Your task to perform on an android device: Show me popular games on the Play Store Image 0: 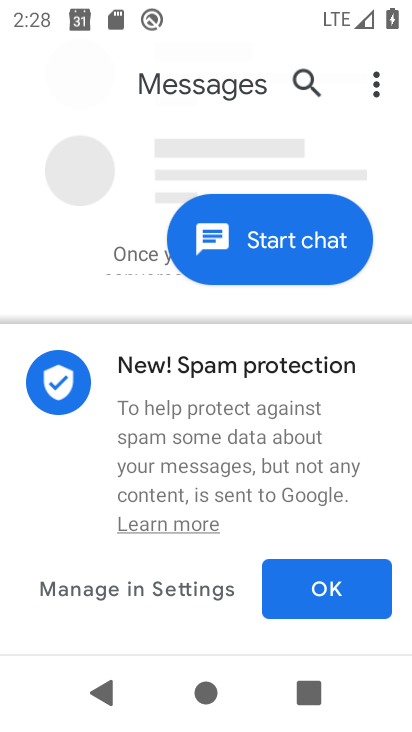
Step 0: press back button
Your task to perform on an android device: Show me popular games on the Play Store Image 1: 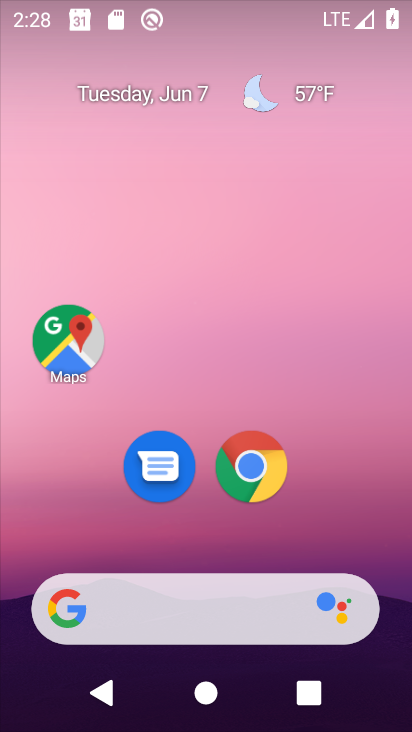
Step 1: drag from (171, 567) to (273, 0)
Your task to perform on an android device: Show me popular games on the Play Store Image 2: 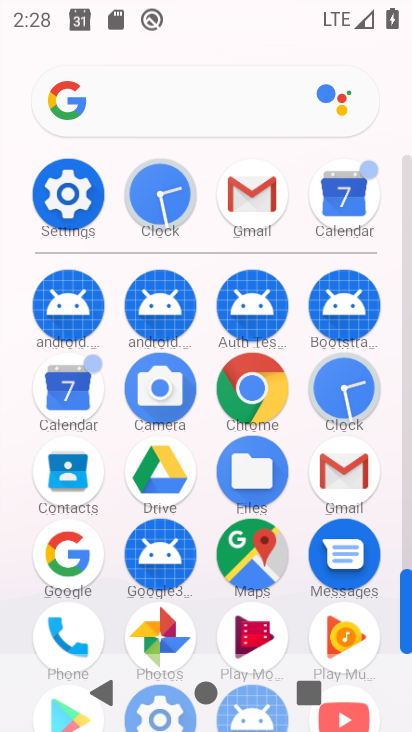
Step 2: drag from (133, 599) to (295, 61)
Your task to perform on an android device: Show me popular games on the Play Store Image 3: 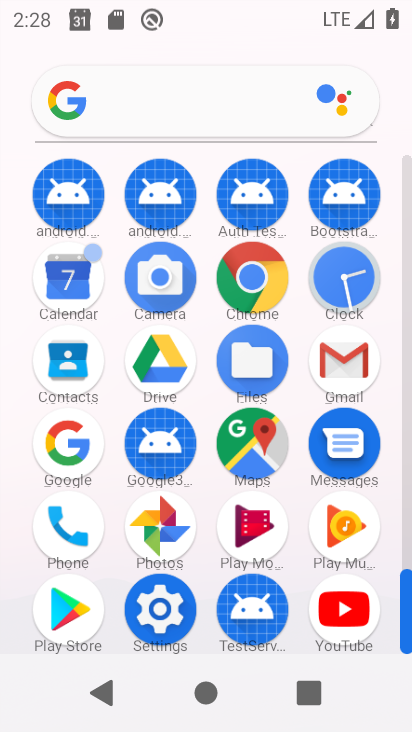
Step 3: click (62, 603)
Your task to perform on an android device: Show me popular games on the Play Store Image 4: 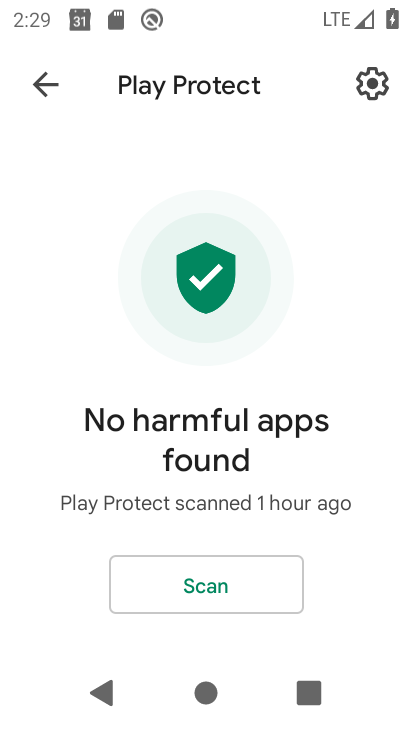
Step 4: click (52, 89)
Your task to perform on an android device: Show me popular games on the Play Store Image 5: 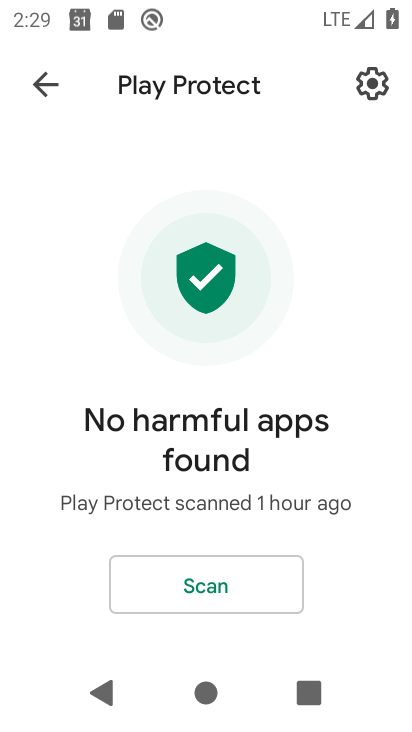
Step 5: click (34, 82)
Your task to perform on an android device: Show me popular games on the Play Store Image 6: 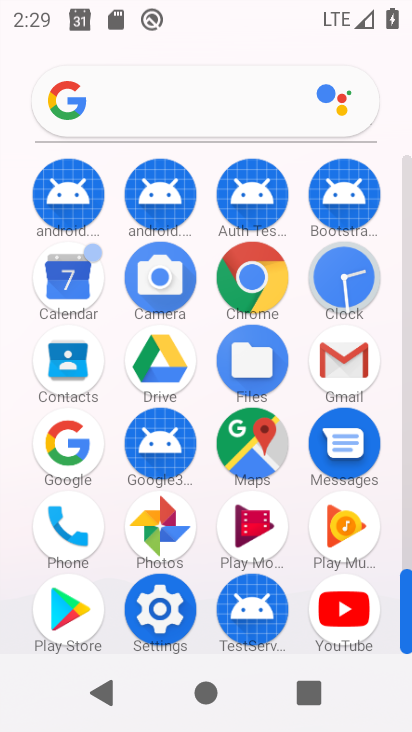
Step 6: click (63, 630)
Your task to perform on an android device: Show me popular games on the Play Store Image 7: 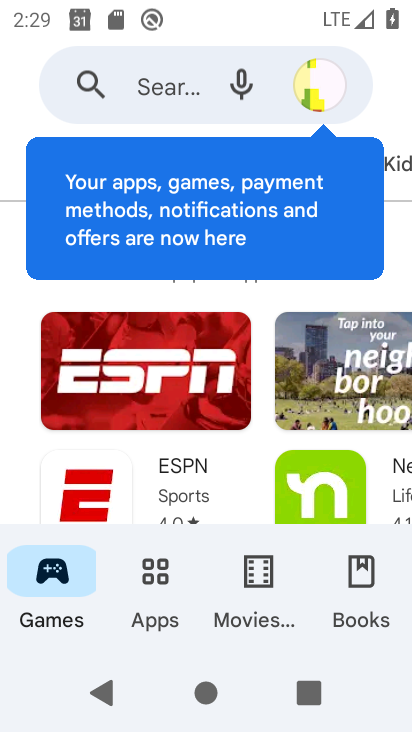
Step 7: drag from (187, 477) to (245, 76)
Your task to perform on an android device: Show me popular games on the Play Store Image 8: 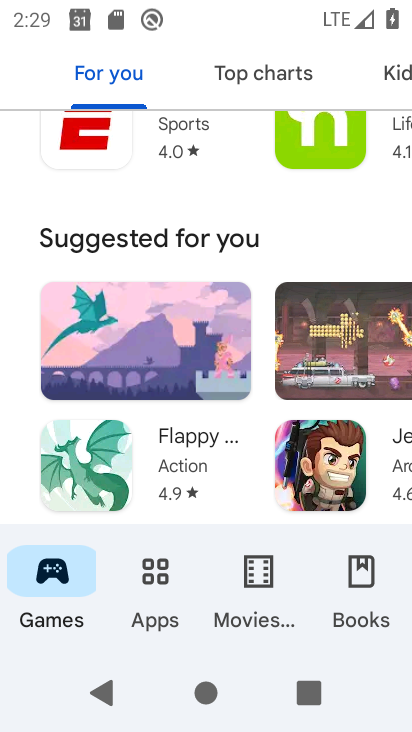
Step 8: drag from (237, 172) to (288, 3)
Your task to perform on an android device: Show me popular games on the Play Store Image 9: 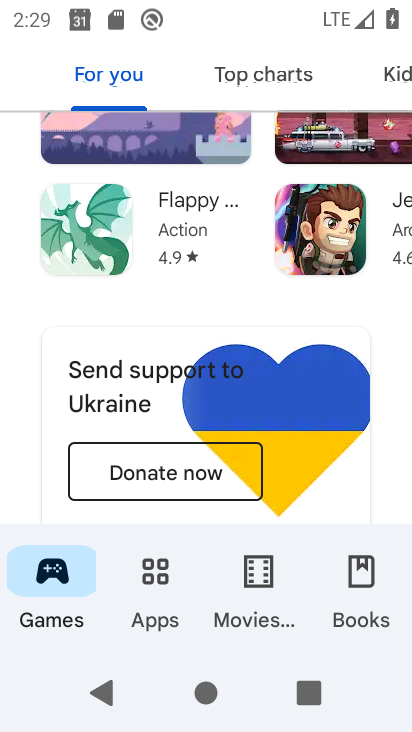
Step 9: drag from (199, 441) to (255, 6)
Your task to perform on an android device: Show me popular games on the Play Store Image 10: 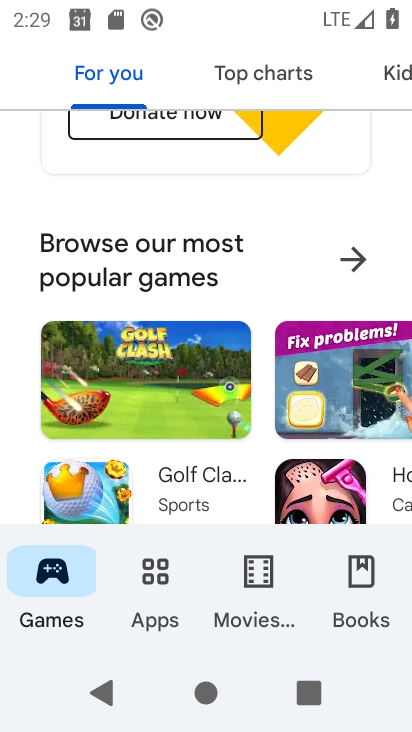
Step 10: drag from (190, 406) to (209, 334)
Your task to perform on an android device: Show me popular games on the Play Store Image 11: 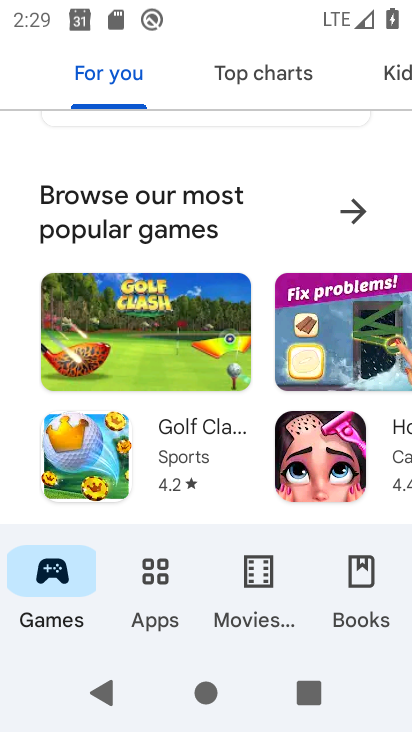
Step 11: click (325, 202)
Your task to perform on an android device: Show me popular games on the Play Store Image 12: 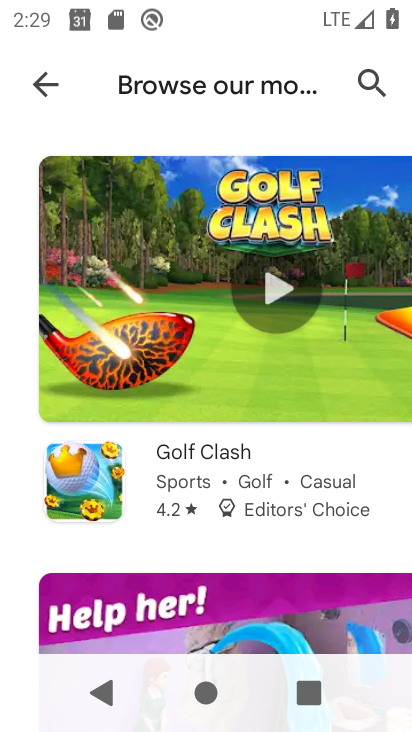
Step 12: task complete